Your task to perform on an android device: Do I have any events this weekend? Image 0: 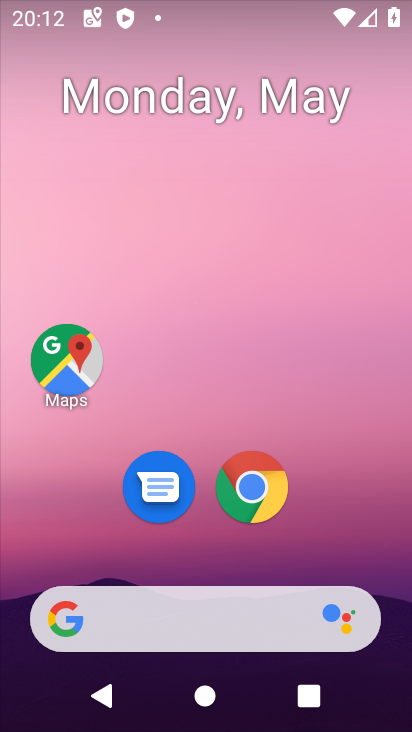
Step 0: drag from (382, 567) to (366, 201)
Your task to perform on an android device: Do I have any events this weekend? Image 1: 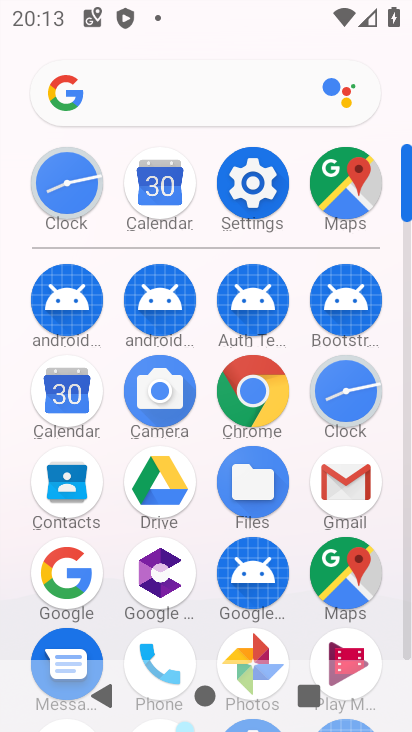
Step 1: click (64, 401)
Your task to perform on an android device: Do I have any events this weekend? Image 2: 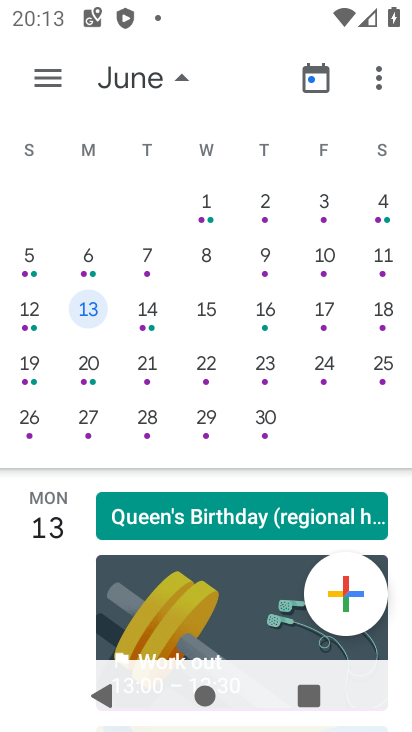
Step 2: click (387, 202)
Your task to perform on an android device: Do I have any events this weekend? Image 3: 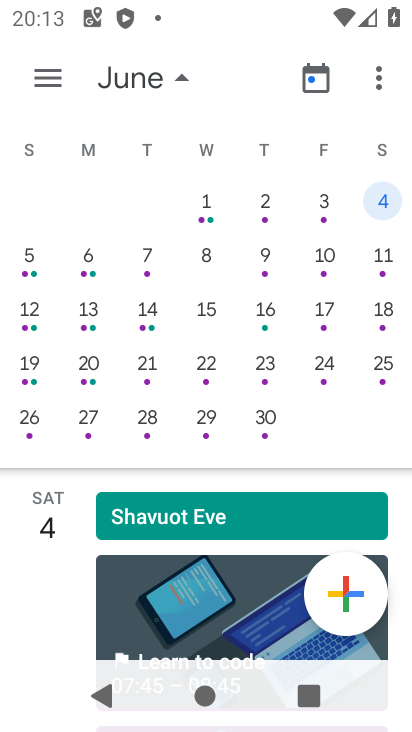
Step 3: drag from (217, 605) to (228, 191)
Your task to perform on an android device: Do I have any events this weekend? Image 4: 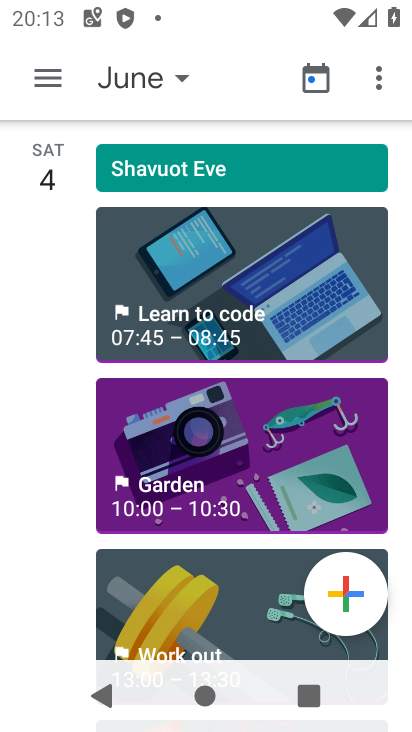
Step 4: click (199, 437)
Your task to perform on an android device: Do I have any events this weekend? Image 5: 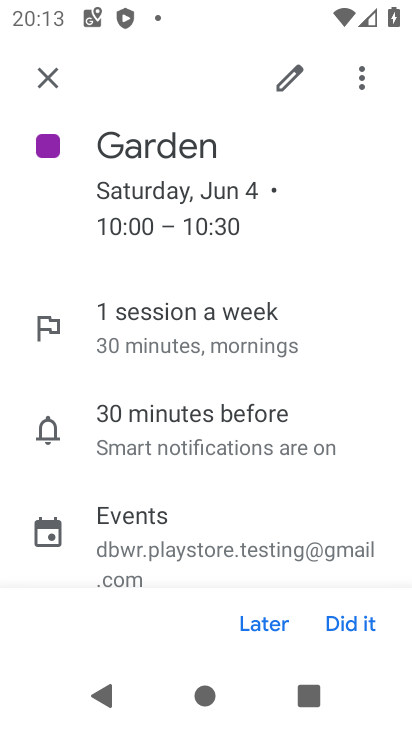
Step 5: task complete